Your task to perform on an android device: Open the phone app and click the voicemail tab. Image 0: 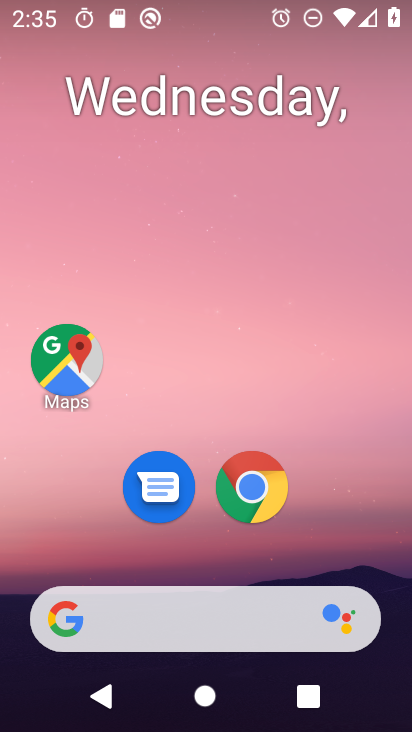
Step 0: drag from (180, 568) to (294, 45)
Your task to perform on an android device: Open the phone app and click the voicemail tab. Image 1: 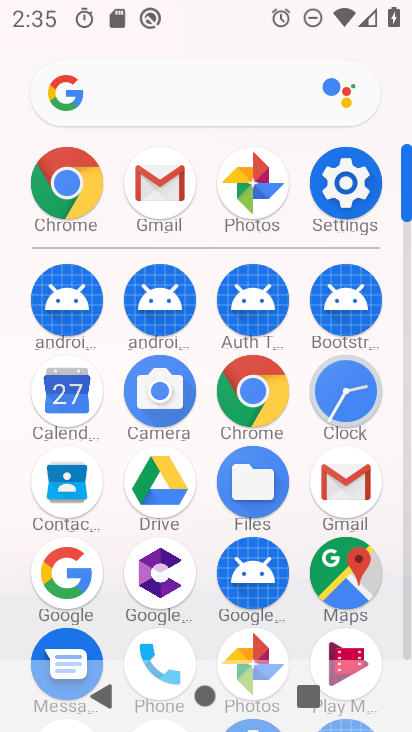
Step 1: click (170, 641)
Your task to perform on an android device: Open the phone app and click the voicemail tab. Image 2: 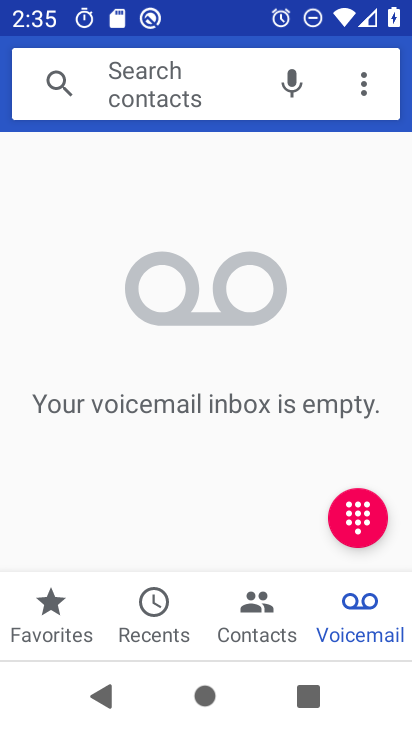
Step 2: click (358, 644)
Your task to perform on an android device: Open the phone app and click the voicemail tab. Image 3: 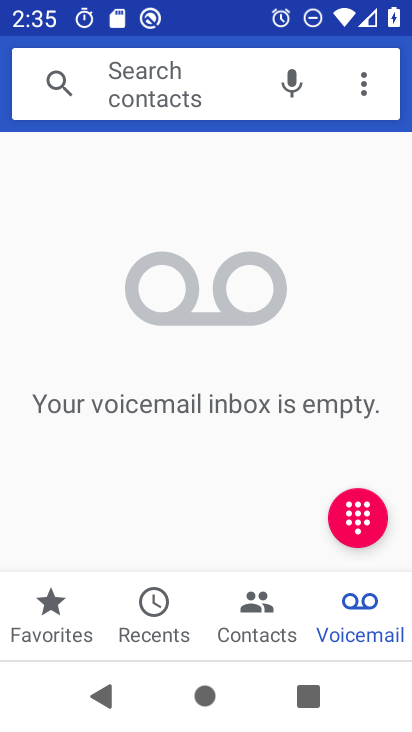
Step 3: task complete